Your task to perform on an android device: Open Youtube and go to the subscriptions tab Image 0: 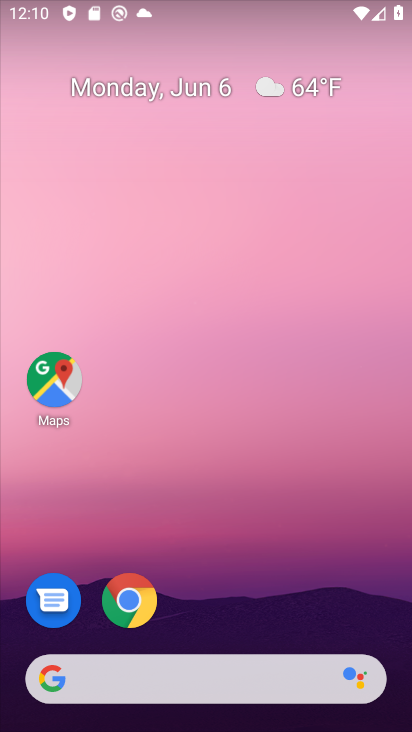
Step 0: drag from (389, 610) to (352, 138)
Your task to perform on an android device: Open Youtube and go to the subscriptions tab Image 1: 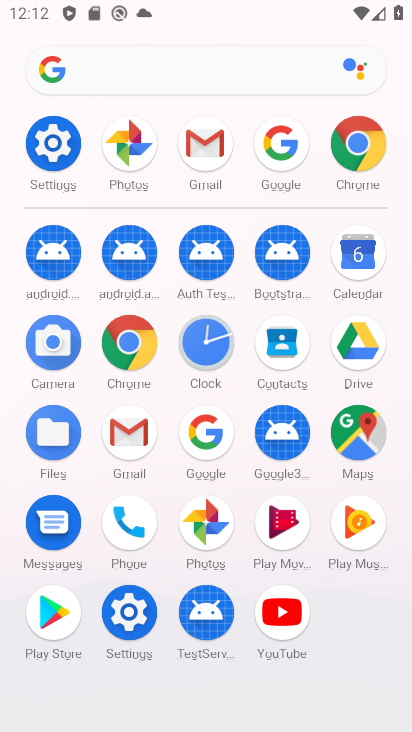
Step 1: click (278, 621)
Your task to perform on an android device: Open Youtube and go to the subscriptions tab Image 2: 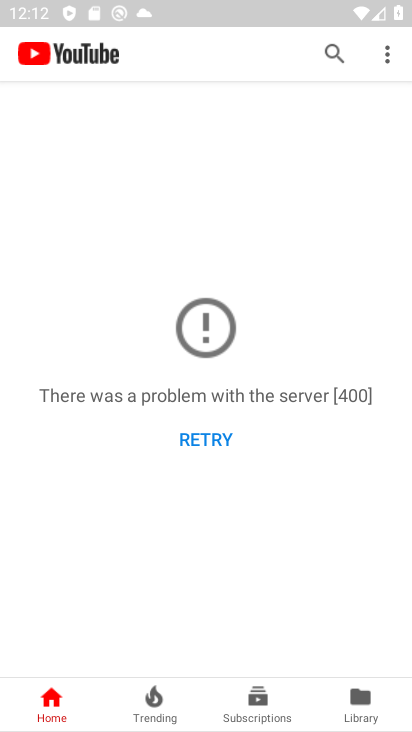
Step 2: click (270, 698)
Your task to perform on an android device: Open Youtube and go to the subscriptions tab Image 3: 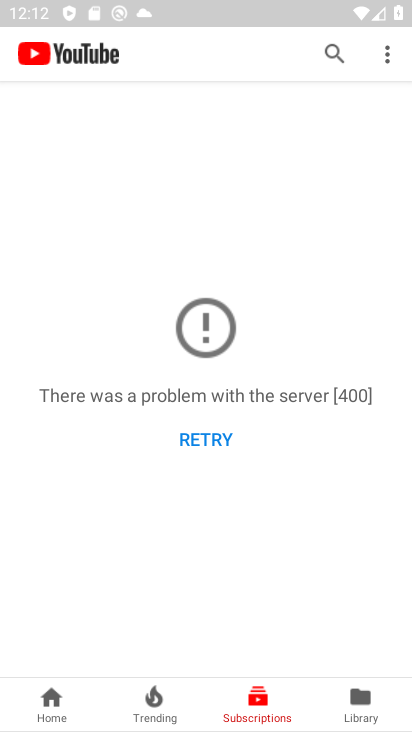
Step 3: task complete